Your task to perform on an android device: turn off translation in the chrome app Image 0: 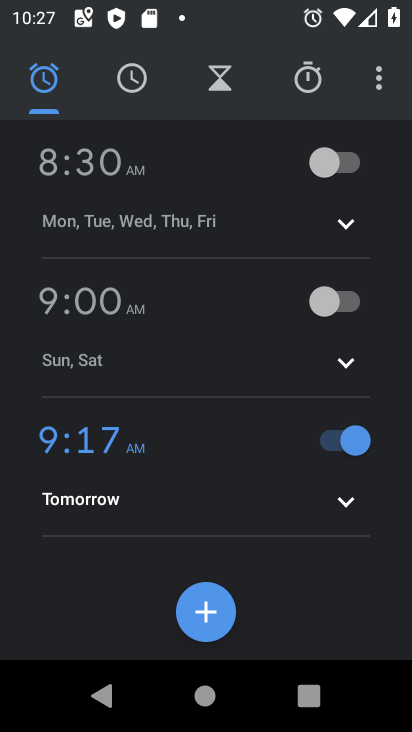
Step 0: press home button
Your task to perform on an android device: turn off translation in the chrome app Image 1: 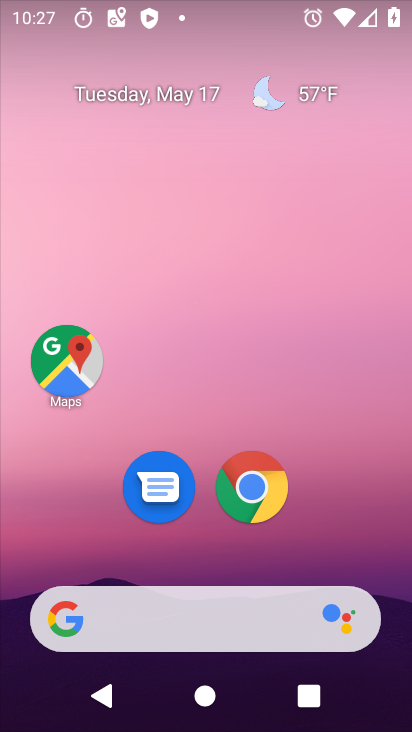
Step 1: click (252, 490)
Your task to perform on an android device: turn off translation in the chrome app Image 2: 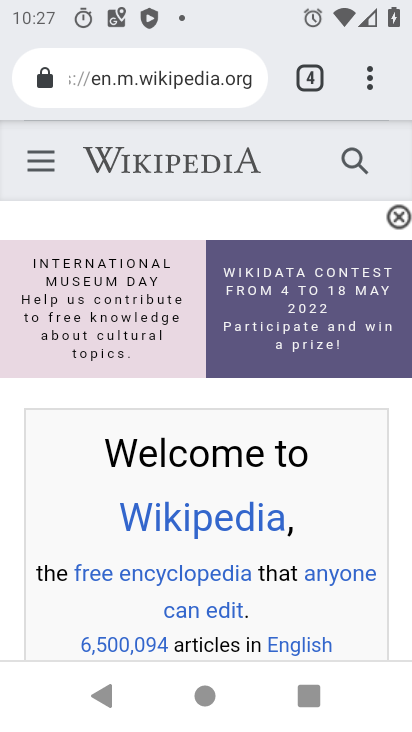
Step 2: press home button
Your task to perform on an android device: turn off translation in the chrome app Image 3: 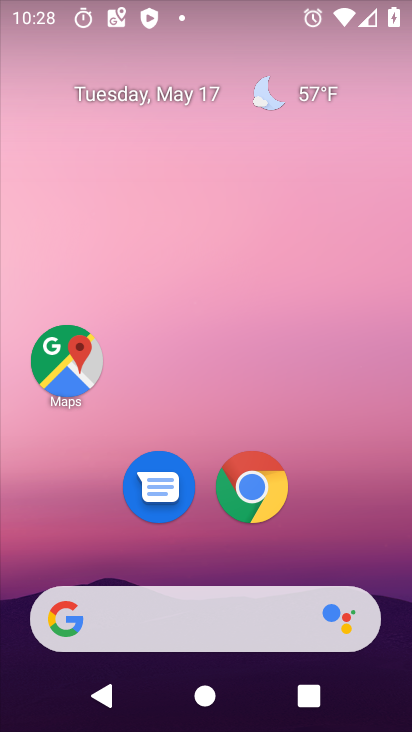
Step 3: click (247, 493)
Your task to perform on an android device: turn off translation in the chrome app Image 4: 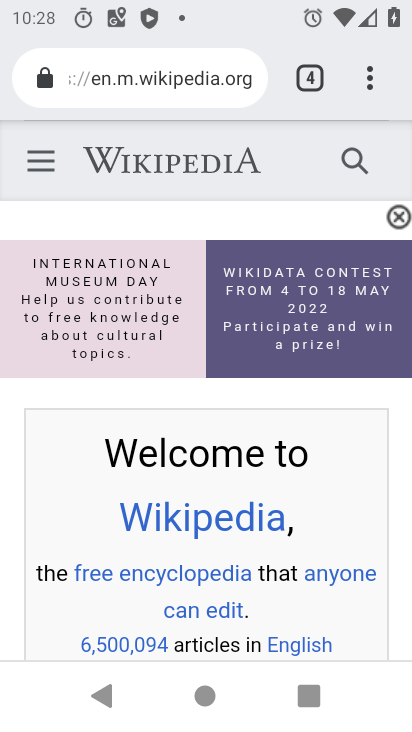
Step 4: click (372, 87)
Your task to perform on an android device: turn off translation in the chrome app Image 5: 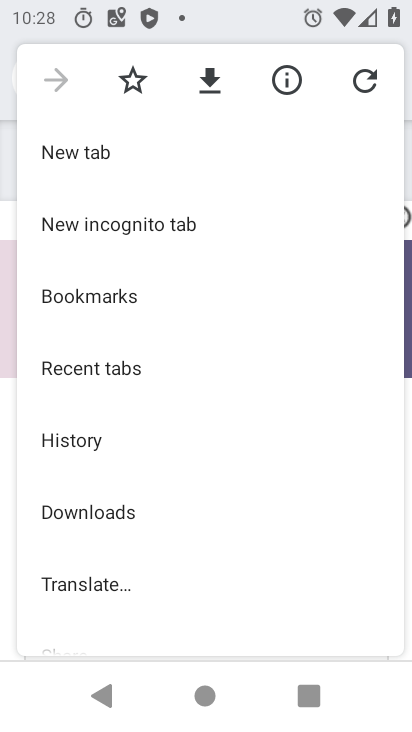
Step 5: drag from (110, 619) to (117, 246)
Your task to perform on an android device: turn off translation in the chrome app Image 6: 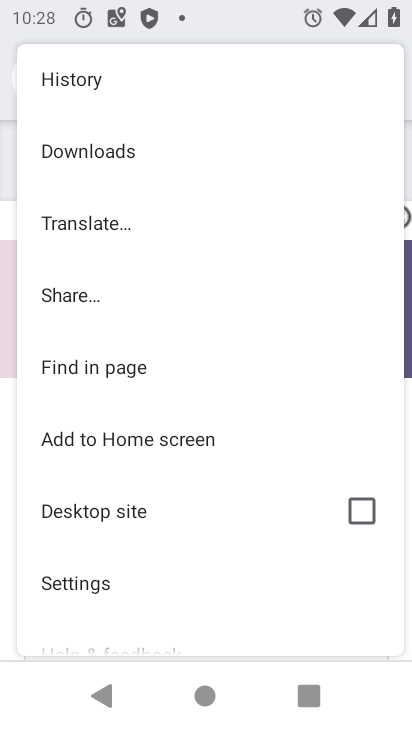
Step 6: click (79, 579)
Your task to perform on an android device: turn off translation in the chrome app Image 7: 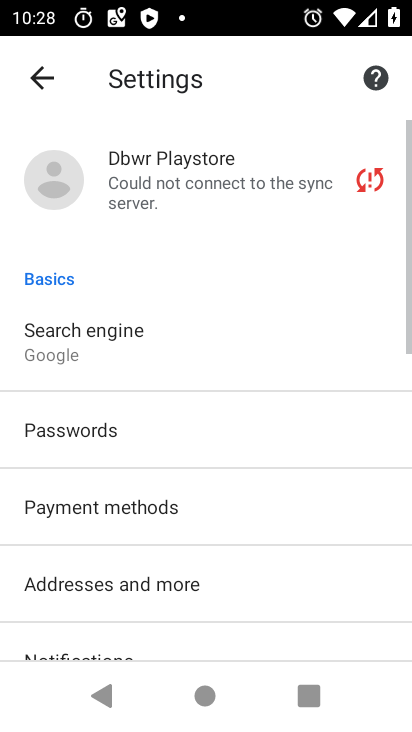
Step 7: drag from (163, 630) to (168, 267)
Your task to perform on an android device: turn off translation in the chrome app Image 8: 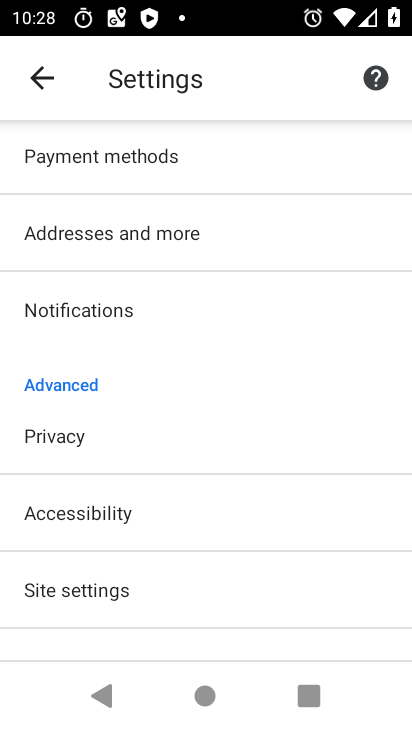
Step 8: drag from (130, 607) to (130, 300)
Your task to perform on an android device: turn off translation in the chrome app Image 9: 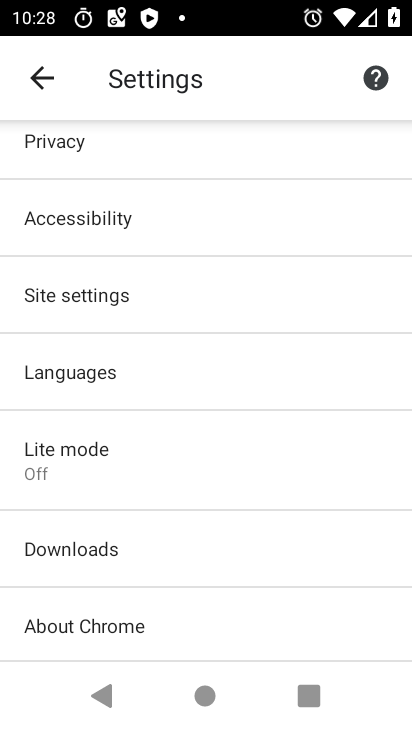
Step 9: click (87, 374)
Your task to perform on an android device: turn off translation in the chrome app Image 10: 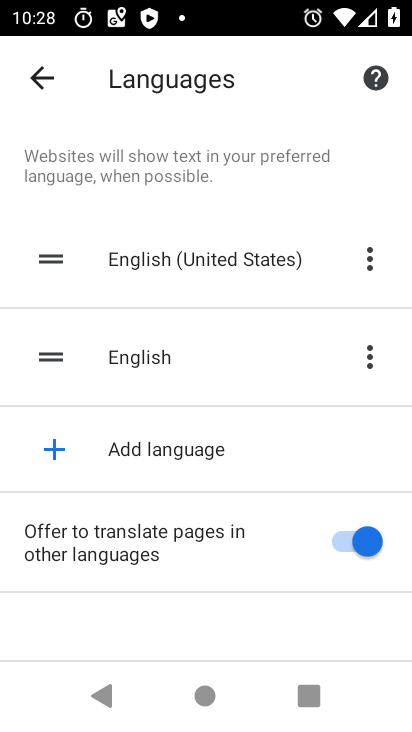
Step 10: click (340, 540)
Your task to perform on an android device: turn off translation in the chrome app Image 11: 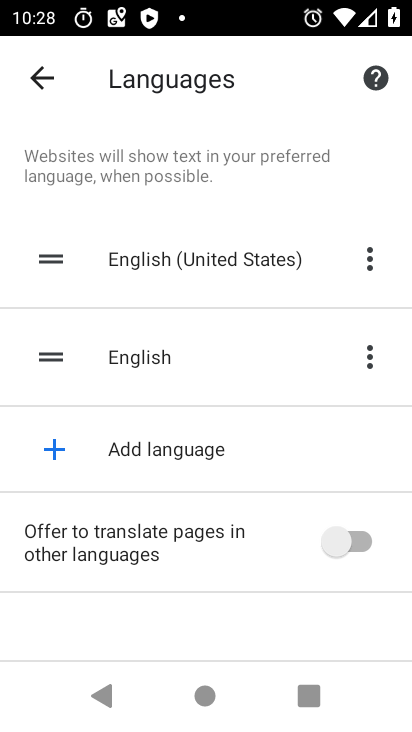
Step 11: task complete